Your task to perform on an android device: Add razer blade to the cart on ebay, then select checkout. Image 0: 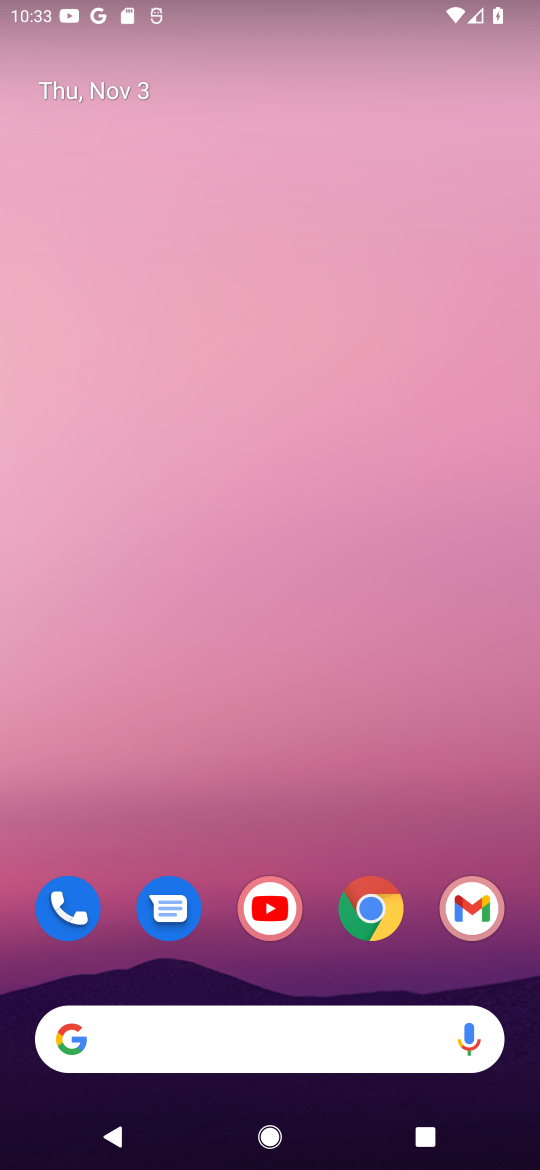
Step 0: click (388, 902)
Your task to perform on an android device: Add razer blade to the cart on ebay, then select checkout. Image 1: 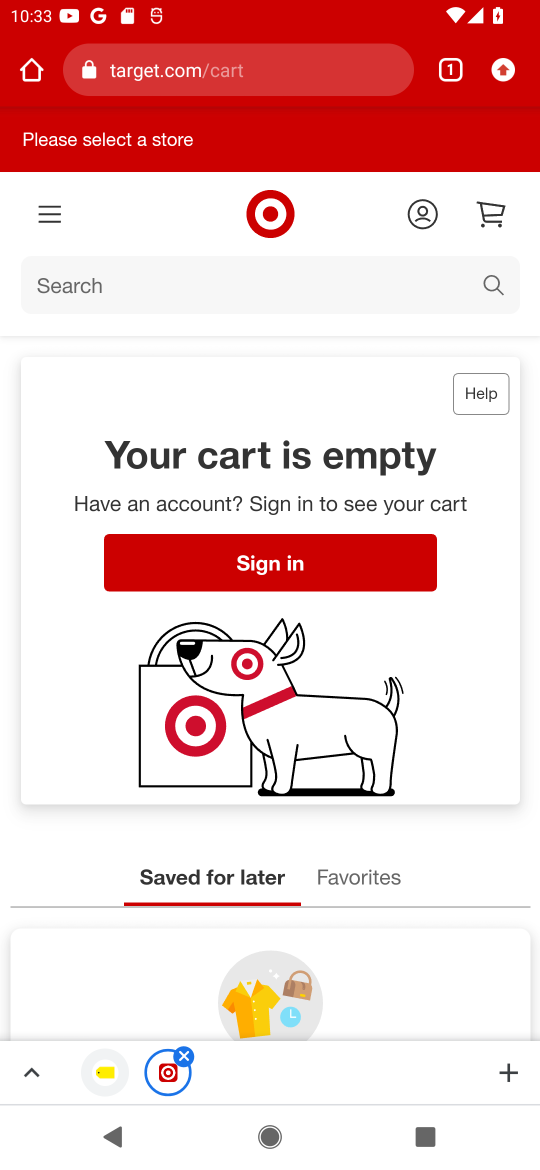
Step 1: click (28, 77)
Your task to perform on an android device: Add razer blade to the cart on ebay, then select checkout. Image 2: 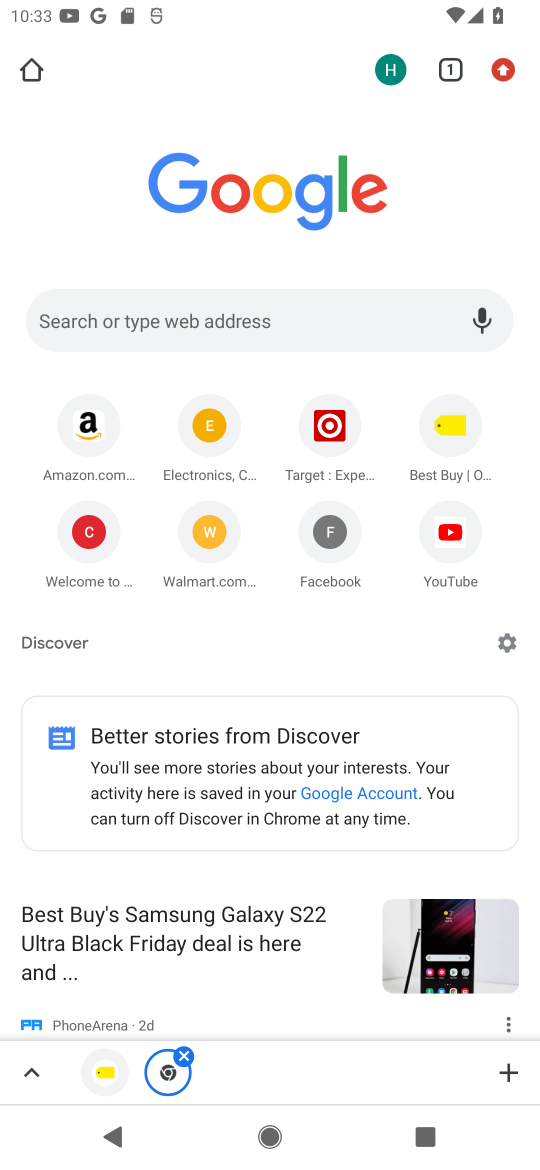
Step 2: click (317, 311)
Your task to perform on an android device: Add razer blade to the cart on ebay, then select checkout. Image 3: 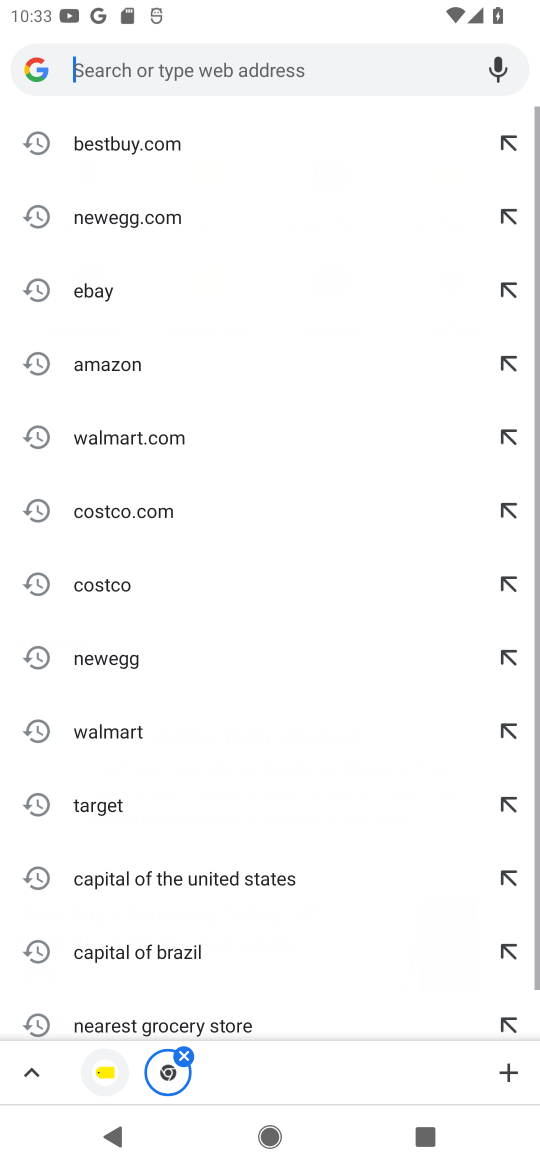
Step 3: click (317, 311)
Your task to perform on an android device: Add razer blade to the cart on ebay, then select checkout. Image 4: 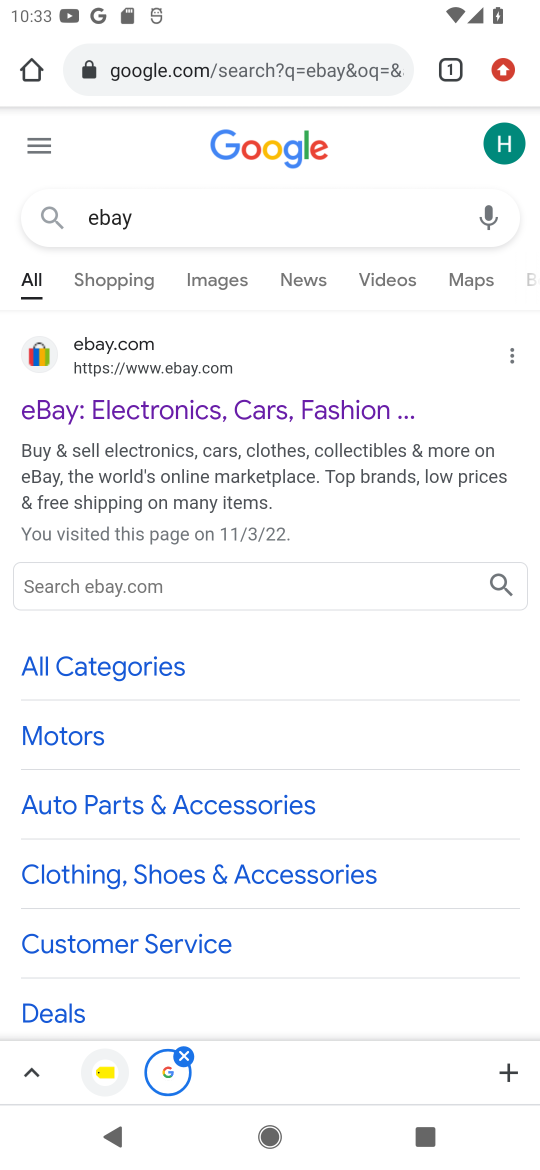
Step 4: click (159, 355)
Your task to perform on an android device: Add razer blade to the cart on ebay, then select checkout. Image 5: 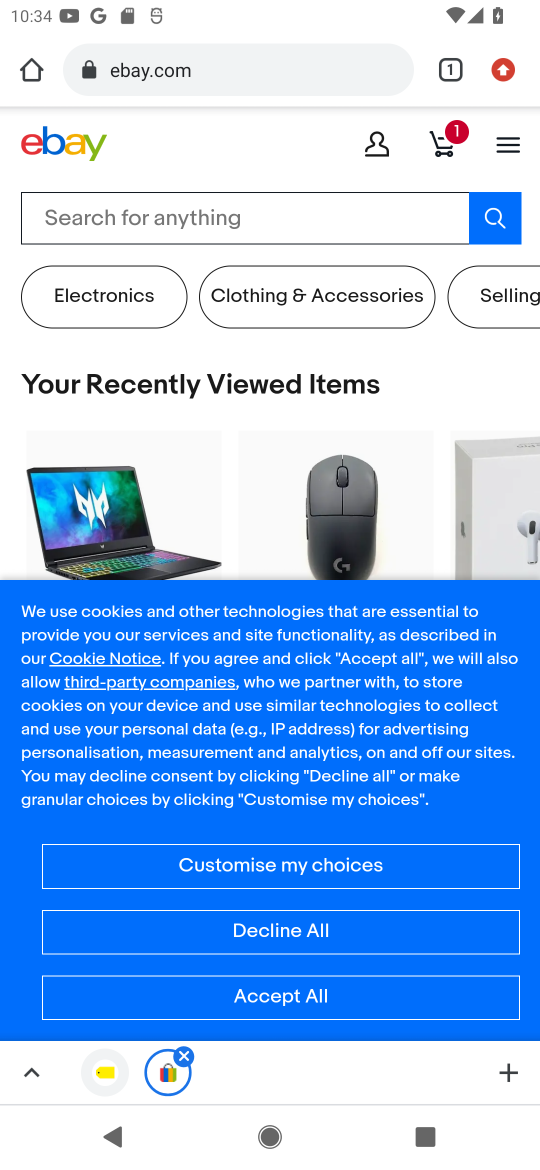
Step 5: type "razer blade"
Your task to perform on an android device: Add razer blade to the cart on ebay, then select checkout. Image 6: 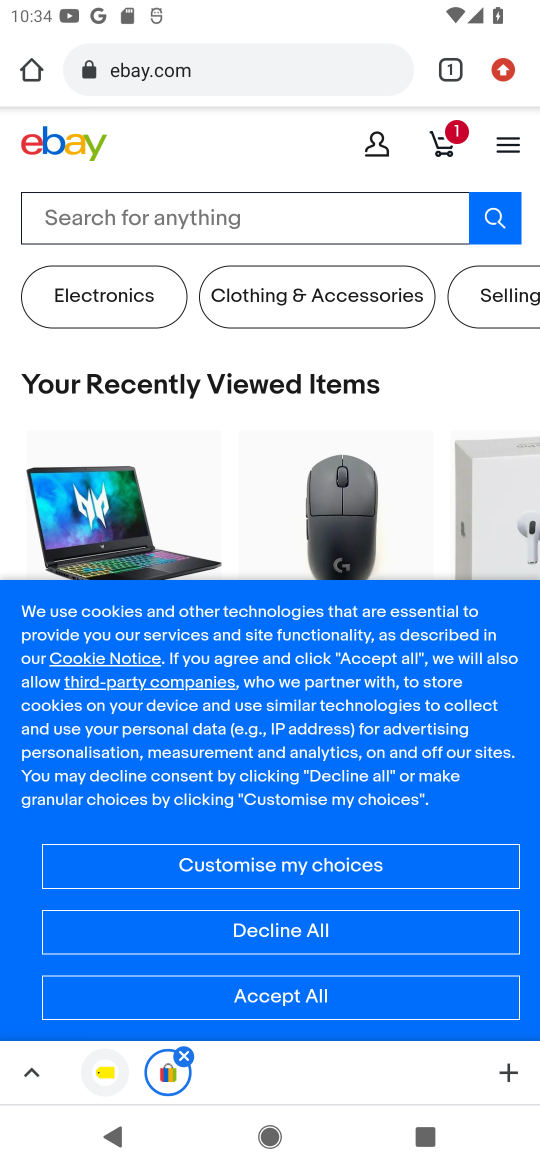
Step 6: press enter
Your task to perform on an android device: Add razer blade to the cart on ebay, then select checkout. Image 7: 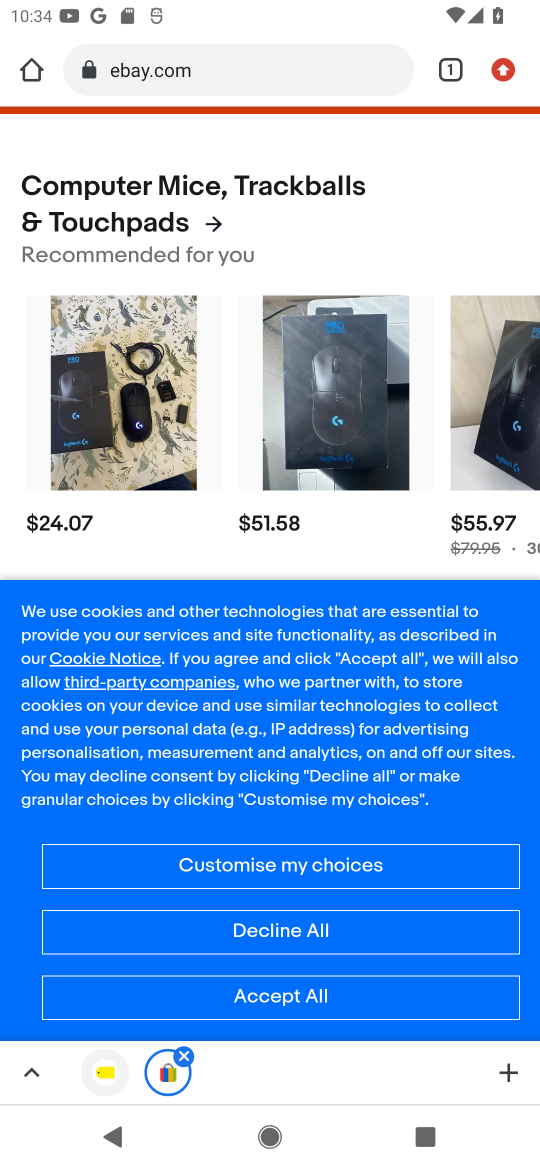
Step 7: click (300, 996)
Your task to perform on an android device: Add razer blade to the cart on ebay, then select checkout. Image 8: 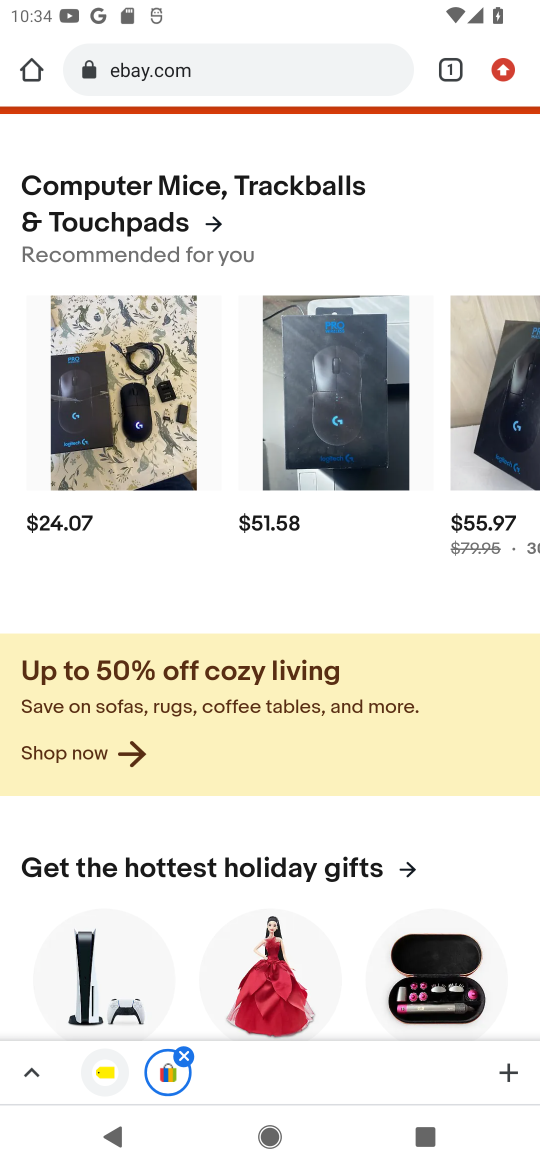
Step 8: drag from (360, 451) to (370, 861)
Your task to perform on an android device: Add razer blade to the cart on ebay, then select checkout. Image 9: 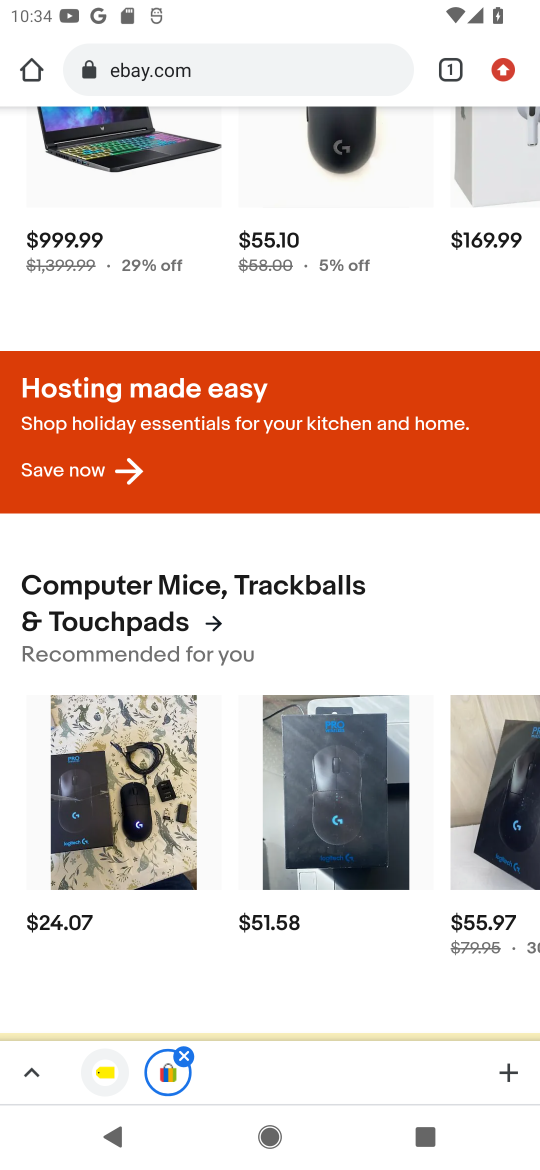
Step 9: drag from (365, 290) to (409, 845)
Your task to perform on an android device: Add razer blade to the cart on ebay, then select checkout. Image 10: 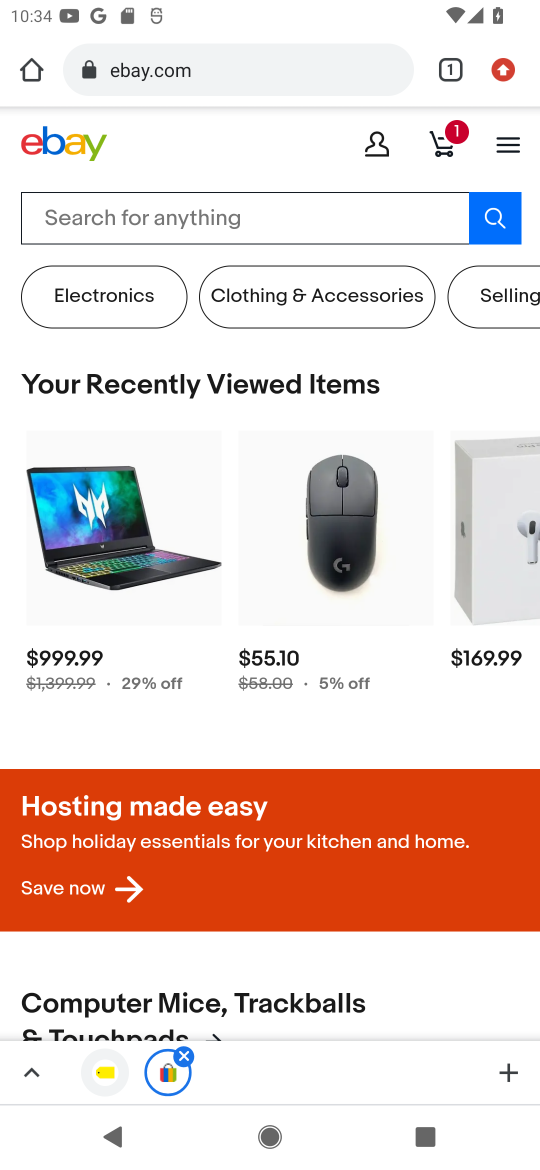
Step 10: click (248, 209)
Your task to perform on an android device: Add razer blade to the cart on ebay, then select checkout. Image 11: 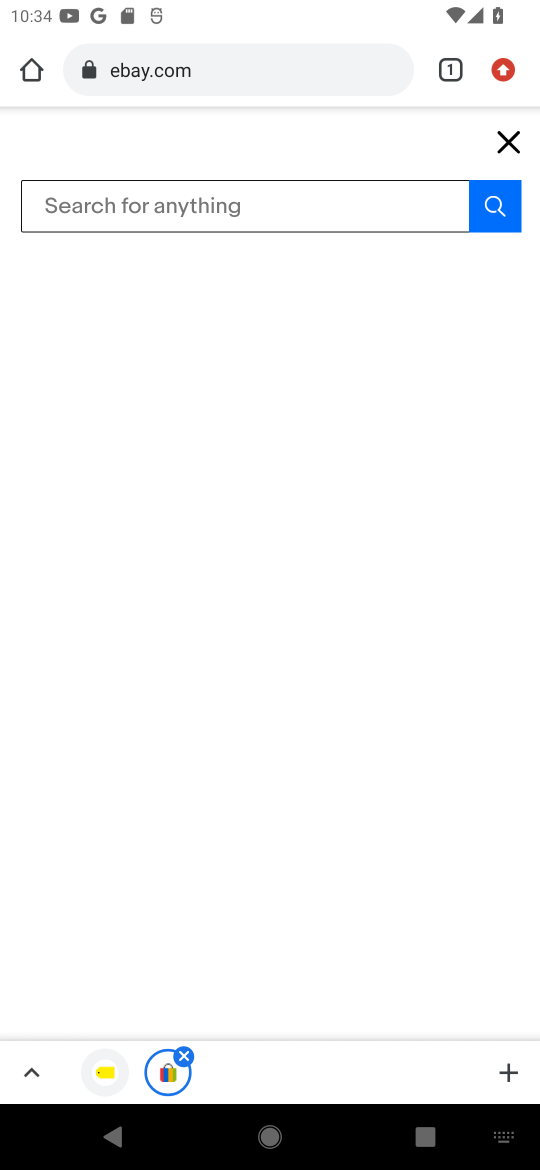
Step 11: type "razer blade"
Your task to perform on an android device: Add razer blade to the cart on ebay, then select checkout. Image 12: 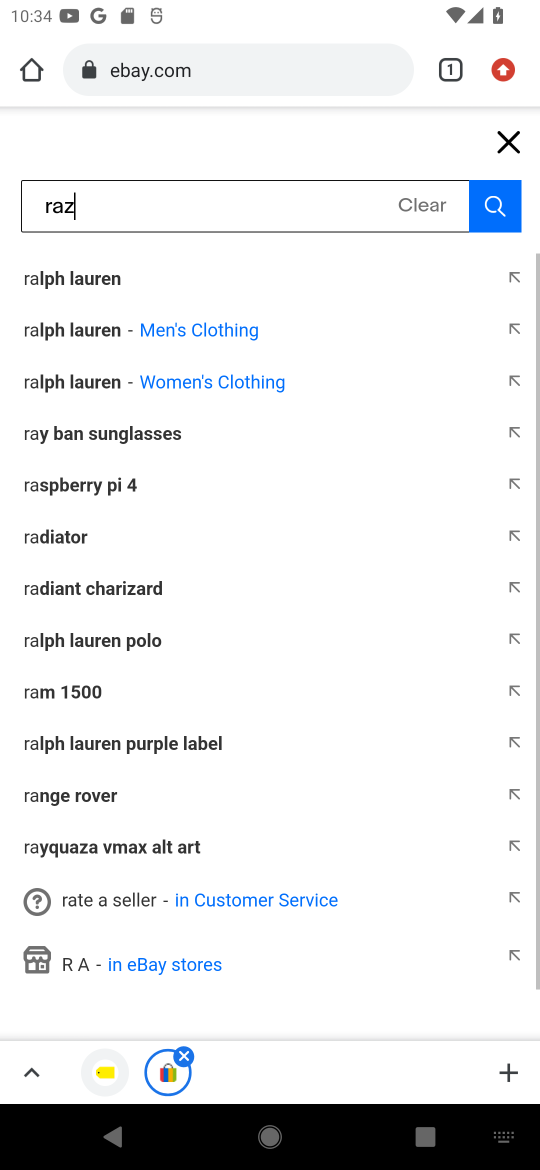
Step 12: press enter
Your task to perform on an android device: Add razer blade to the cart on ebay, then select checkout. Image 13: 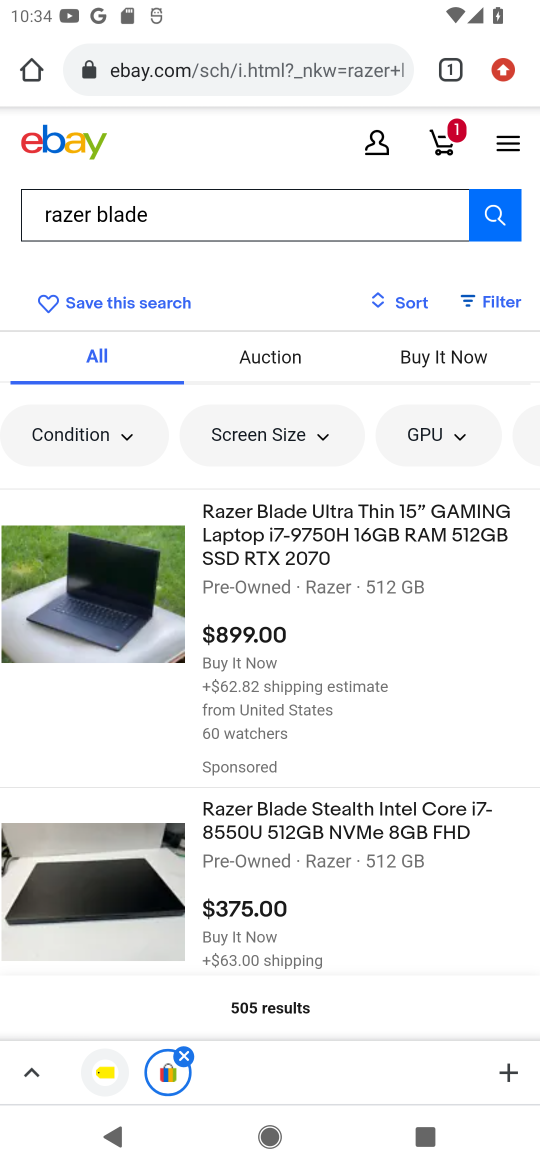
Step 13: click (99, 583)
Your task to perform on an android device: Add razer blade to the cart on ebay, then select checkout. Image 14: 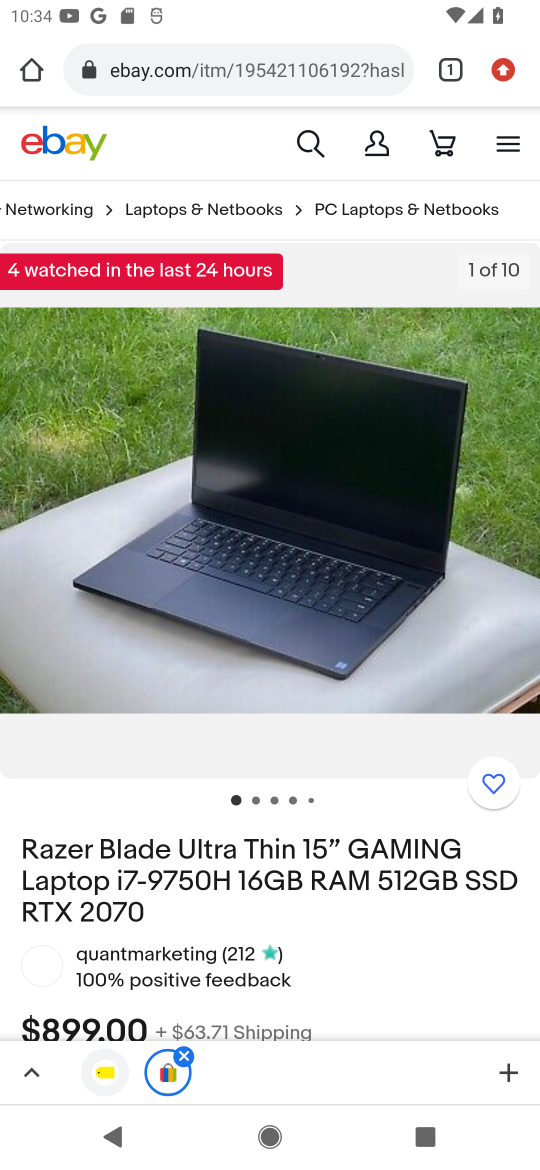
Step 14: drag from (405, 861) to (460, 284)
Your task to perform on an android device: Add razer blade to the cart on ebay, then select checkout. Image 15: 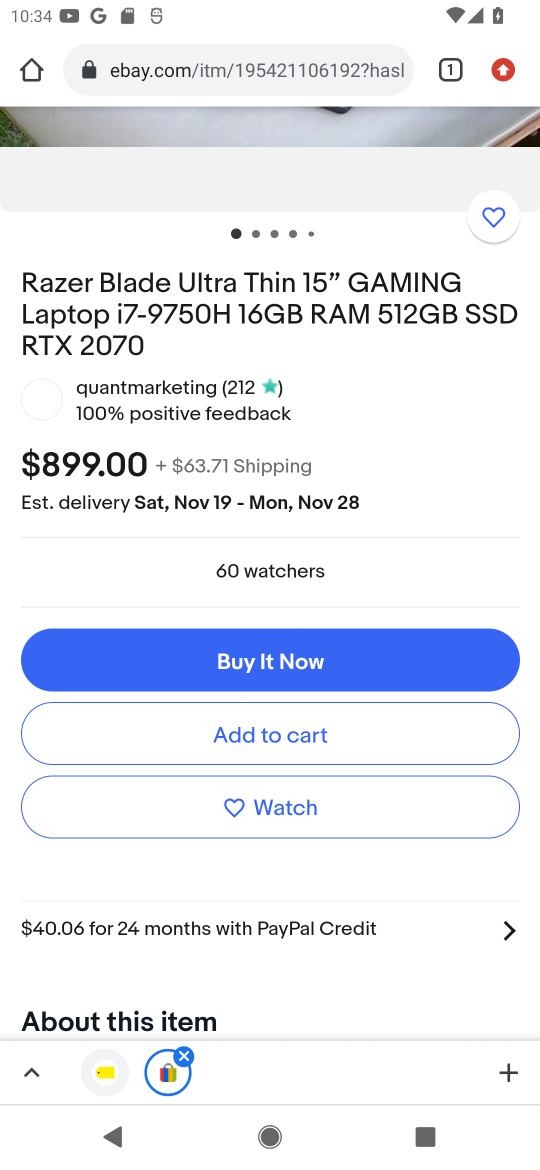
Step 15: click (295, 731)
Your task to perform on an android device: Add razer blade to the cart on ebay, then select checkout. Image 16: 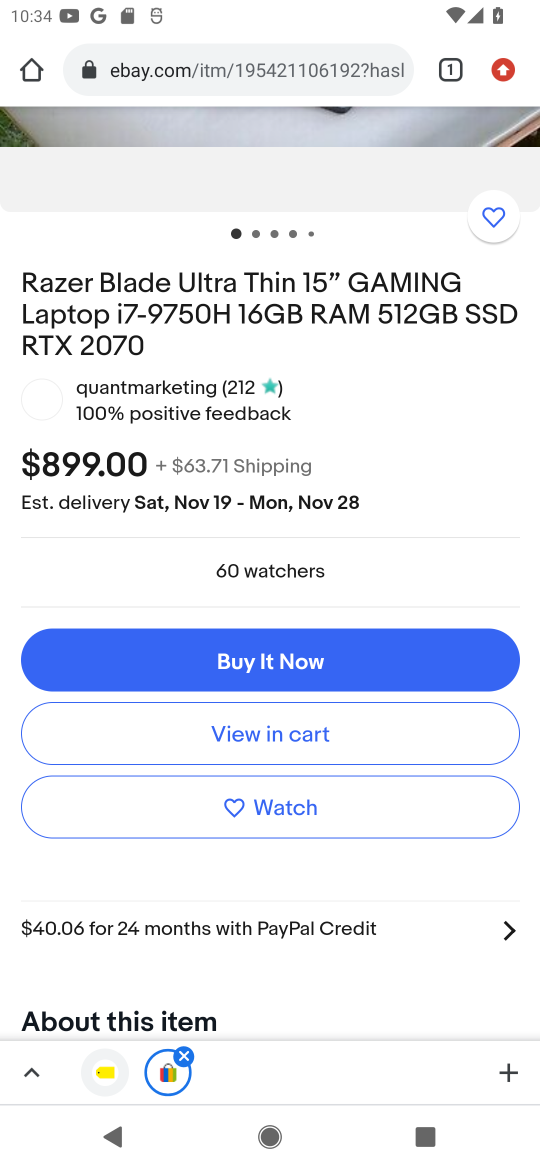
Step 16: click (295, 731)
Your task to perform on an android device: Add razer blade to the cart on ebay, then select checkout. Image 17: 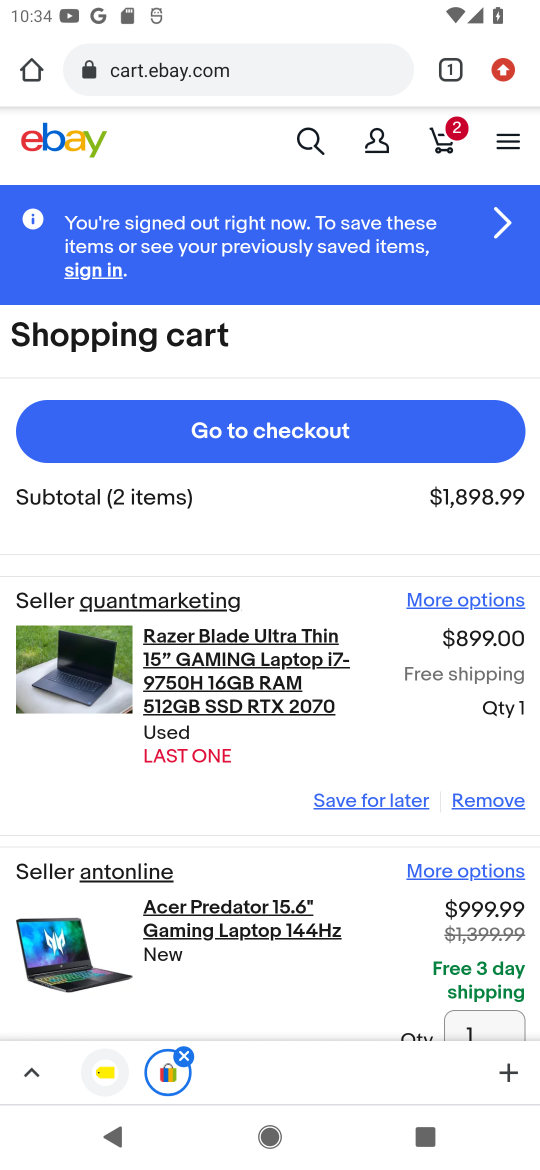
Step 17: click (348, 413)
Your task to perform on an android device: Add razer blade to the cart on ebay, then select checkout. Image 18: 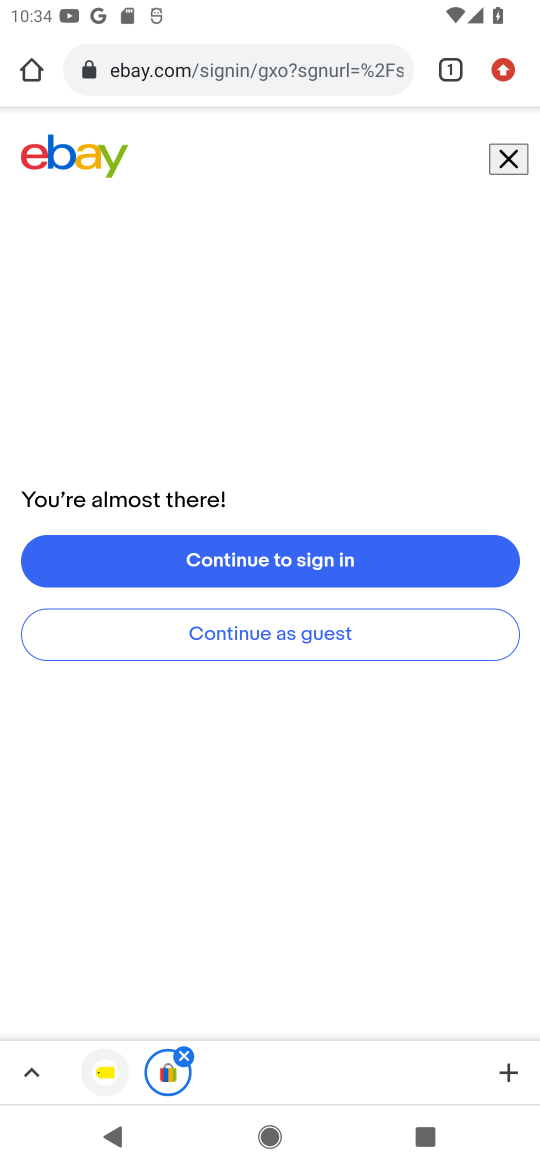
Step 18: task complete